Your task to perform on an android device: Open accessibility settings Image 0: 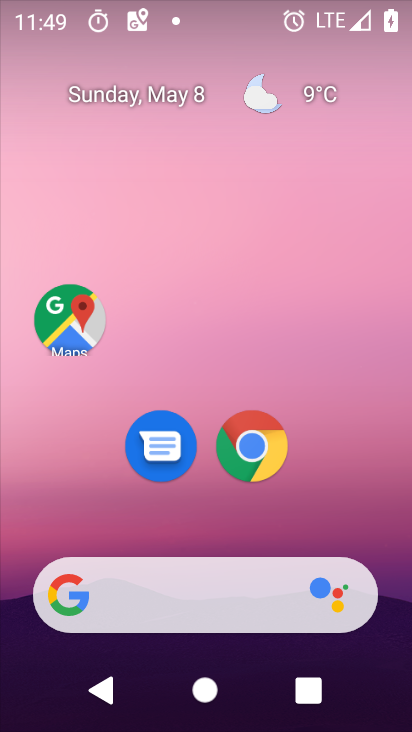
Step 0: drag from (399, 531) to (358, 8)
Your task to perform on an android device: Open accessibility settings Image 1: 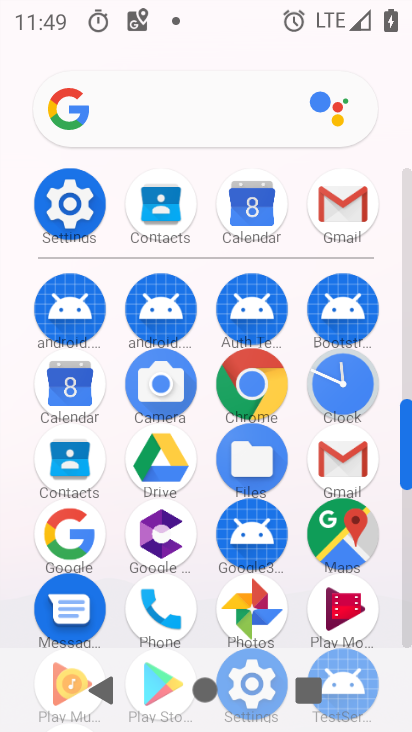
Step 1: click (67, 208)
Your task to perform on an android device: Open accessibility settings Image 2: 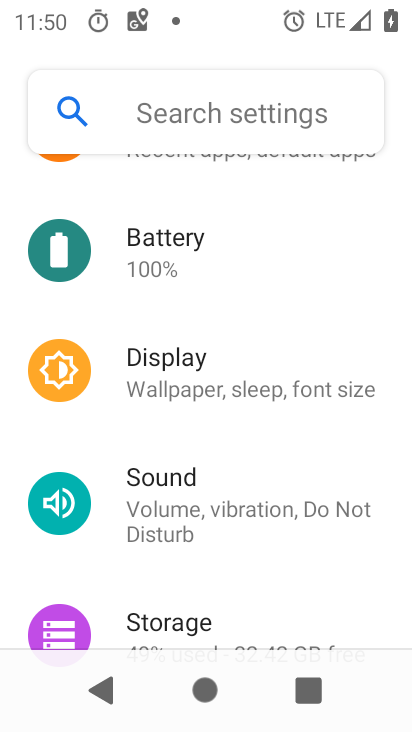
Step 2: drag from (319, 553) to (304, 136)
Your task to perform on an android device: Open accessibility settings Image 3: 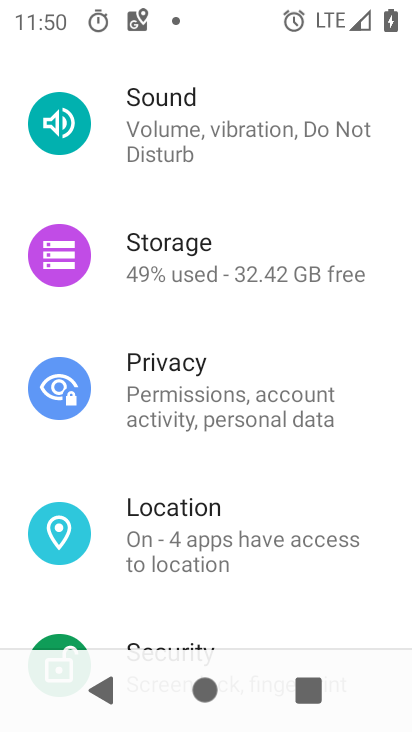
Step 3: drag from (272, 517) to (263, 165)
Your task to perform on an android device: Open accessibility settings Image 4: 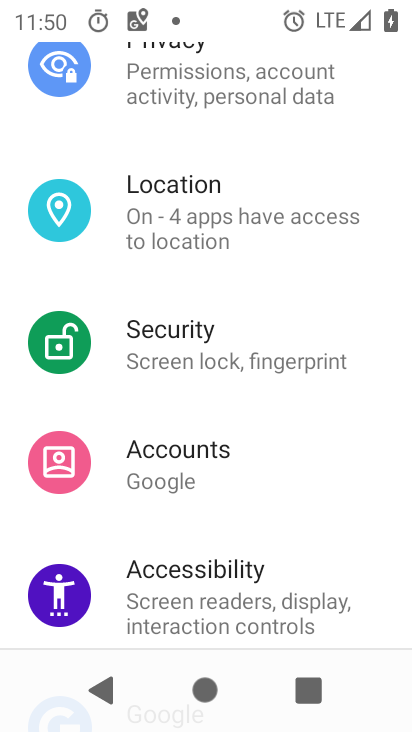
Step 4: drag from (280, 554) to (279, 250)
Your task to perform on an android device: Open accessibility settings Image 5: 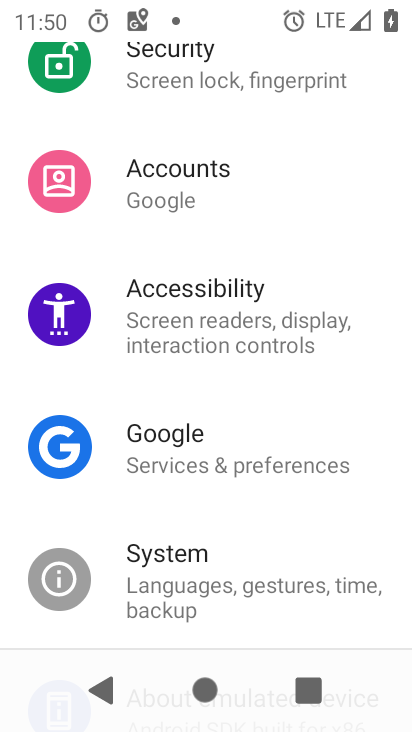
Step 5: click (224, 324)
Your task to perform on an android device: Open accessibility settings Image 6: 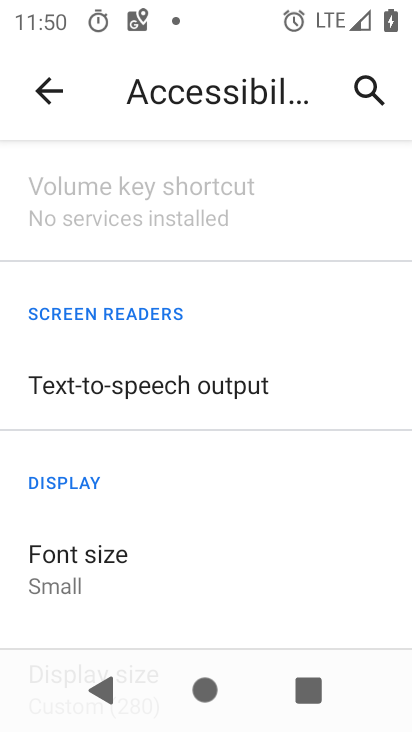
Step 6: task complete